Your task to perform on an android device: Search for Mexican restaurants on Maps Image 0: 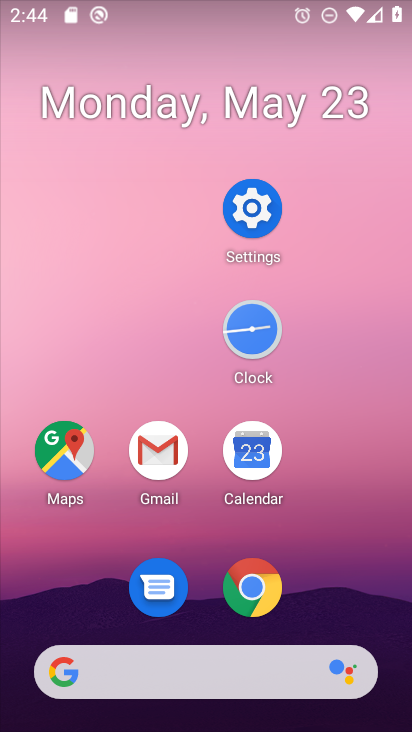
Step 0: click (69, 445)
Your task to perform on an android device: Search for Mexican restaurants on Maps Image 1: 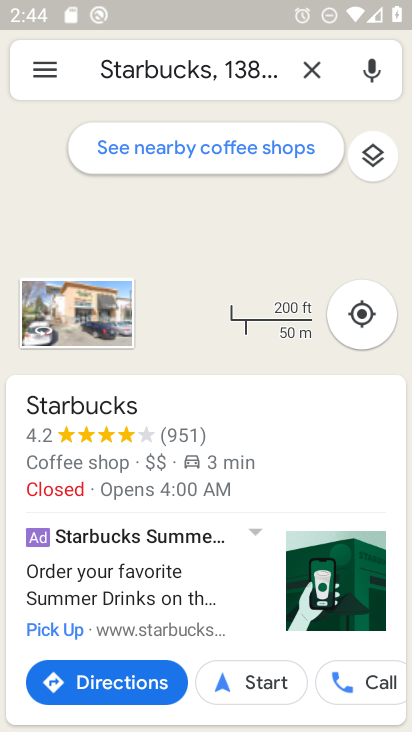
Step 1: click (309, 72)
Your task to perform on an android device: Search for Mexican restaurants on Maps Image 2: 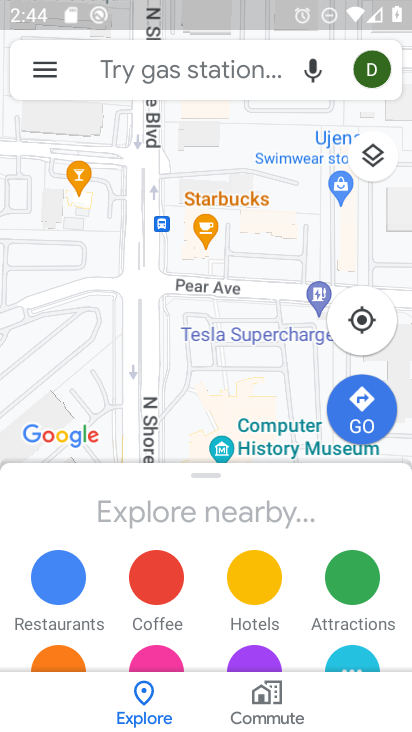
Step 2: click (179, 70)
Your task to perform on an android device: Search for Mexican restaurants on Maps Image 3: 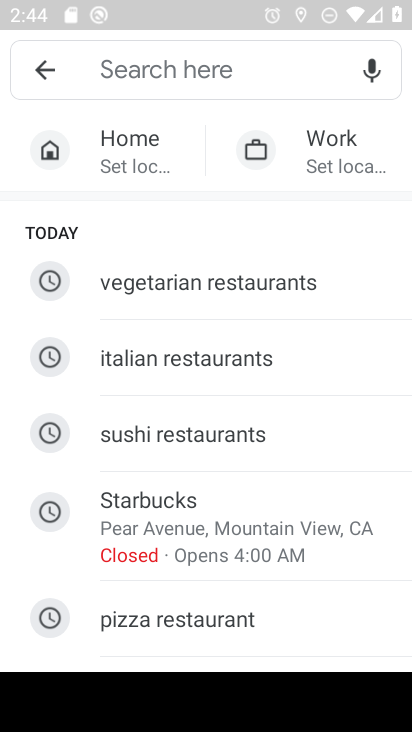
Step 3: drag from (272, 600) to (280, 292)
Your task to perform on an android device: Search for Mexican restaurants on Maps Image 4: 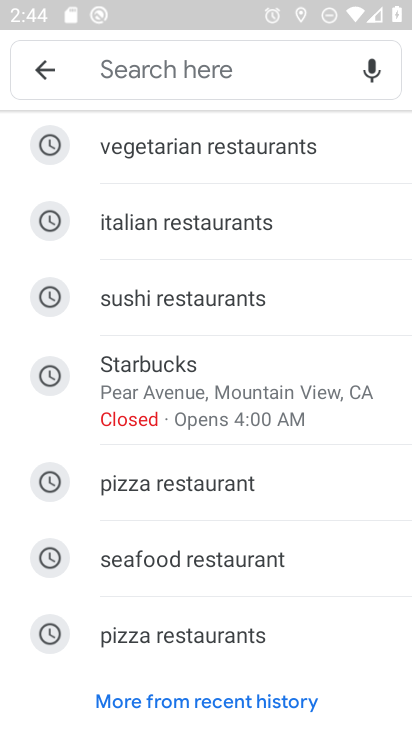
Step 4: drag from (270, 581) to (270, 474)
Your task to perform on an android device: Search for Mexican restaurants on Maps Image 5: 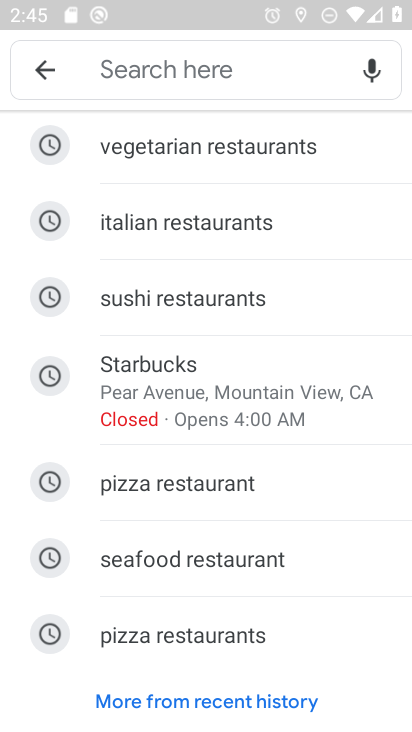
Step 5: click (284, 696)
Your task to perform on an android device: Search for Mexican restaurants on Maps Image 6: 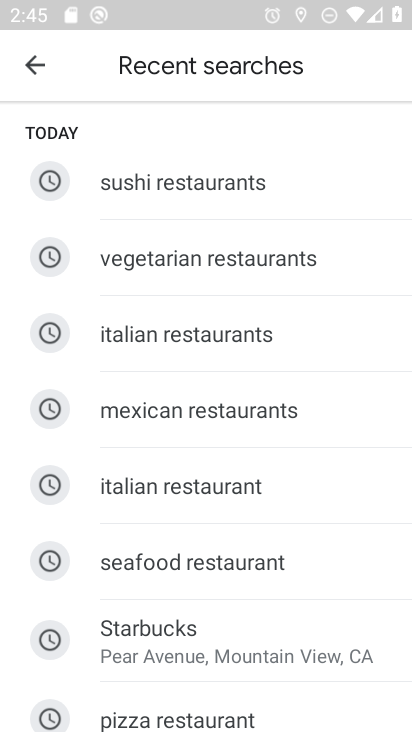
Step 6: drag from (244, 662) to (256, 252)
Your task to perform on an android device: Search for Mexican restaurants on Maps Image 7: 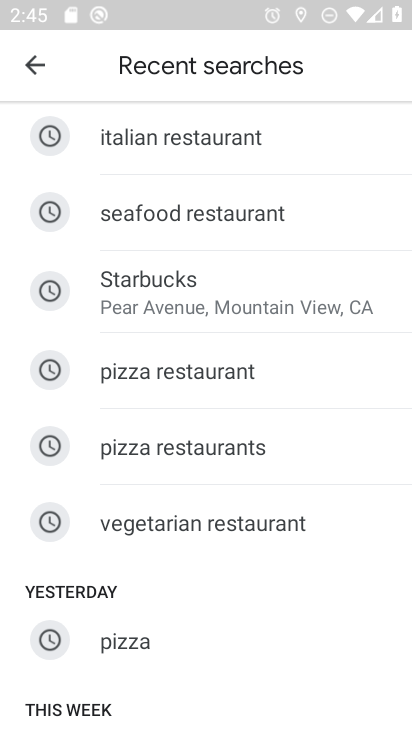
Step 7: click (35, 53)
Your task to perform on an android device: Search for Mexican restaurants on Maps Image 8: 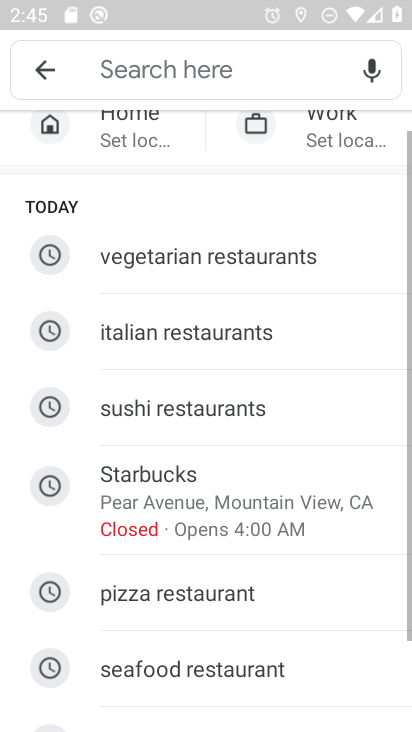
Step 8: click (197, 81)
Your task to perform on an android device: Search for Mexican restaurants on Maps Image 9: 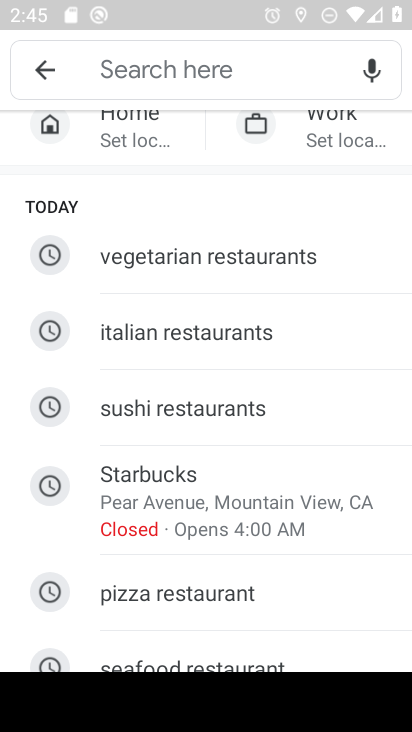
Step 9: type "mexican"
Your task to perform on an android device: Search for Mexican restaurants on Maps Image 10: 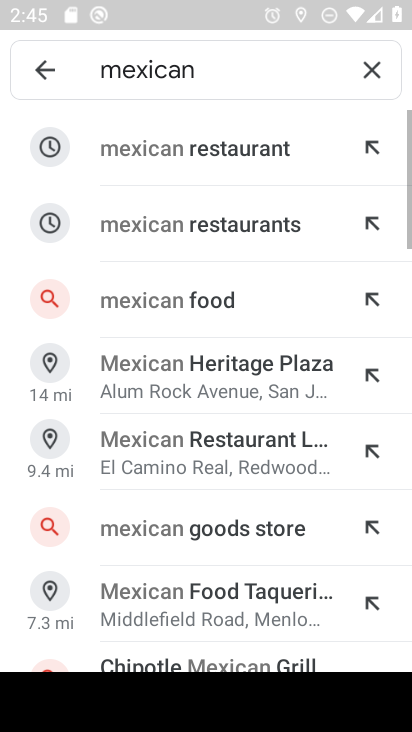
Step 10: click (150, 172)
Your task to perform on an android device: Search for Mexican restaurants on Maps Image 11: 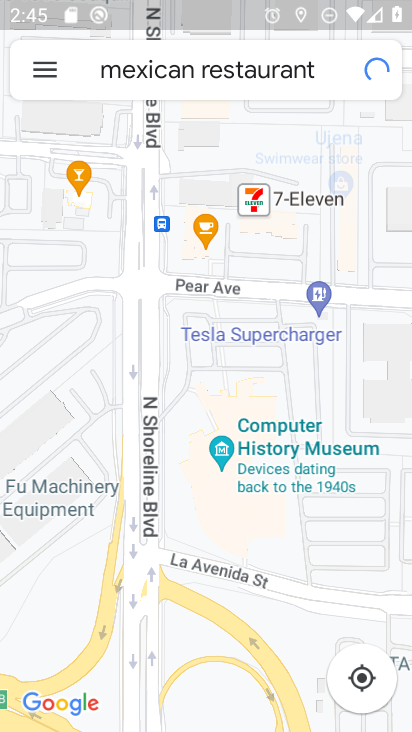
Step 11: task complete